Your task to perform on an android device: Go to internet settings Image 0: 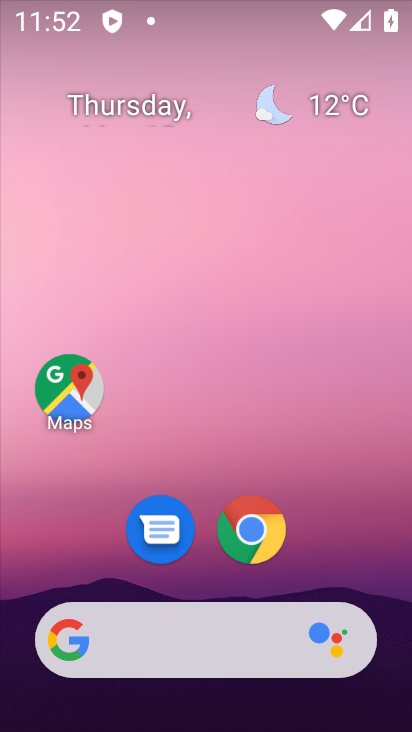
Step 0: click (250, 285)
Your task to perform on an android device: Go to internet settings Image 1: 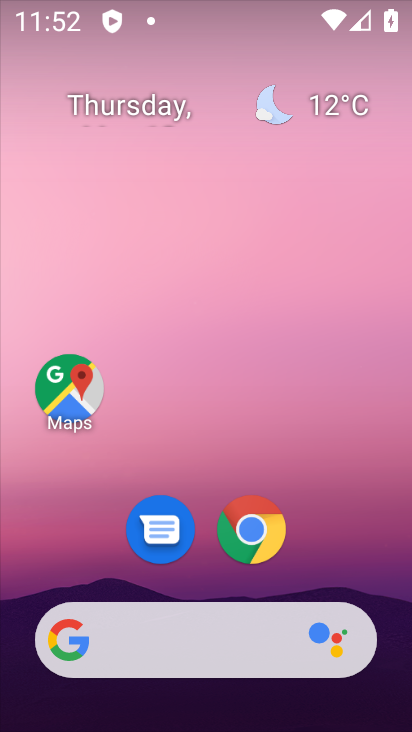
Step 1: drag from (335, 585) to (355, 286)
Your task to perform on an android device: Go to internet settings Image 2: 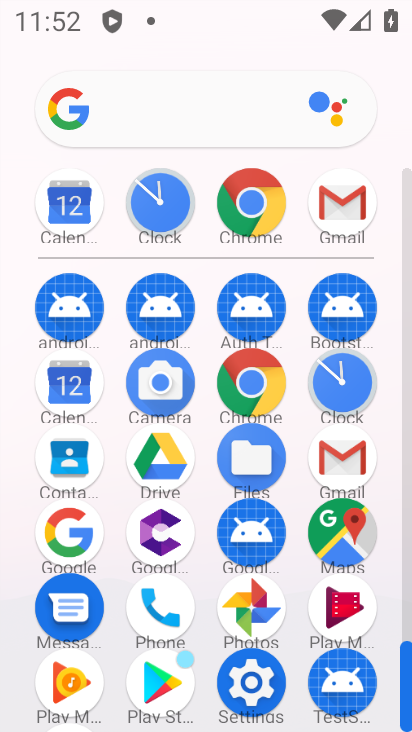
Step 2: click (236, 668)
Your task to perform on an android device: Go to internet settings Image 3: 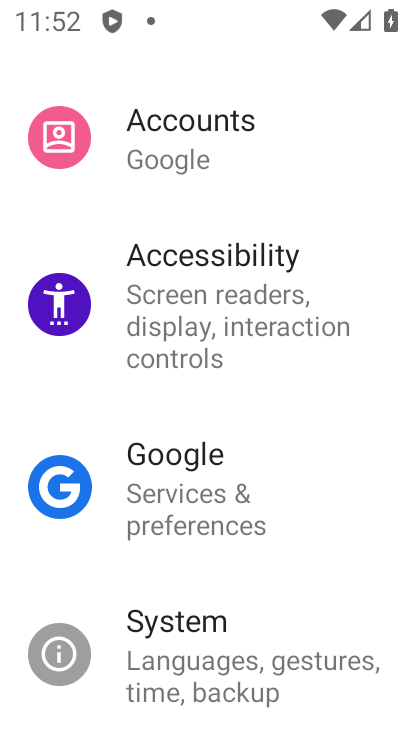
Step 3: drag from (197, 89) to (199, 639)
Your task to perform on an android device: Go to internet settings Image 4: 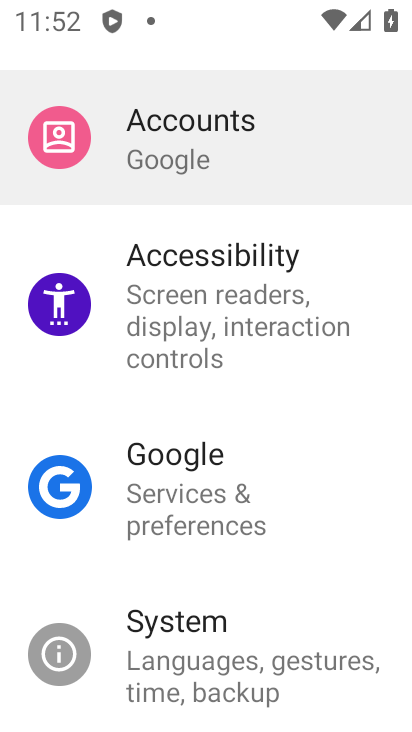
Step 4: click (211, 451)
Your task to perform on an android device: Go to internet settings Image 5: 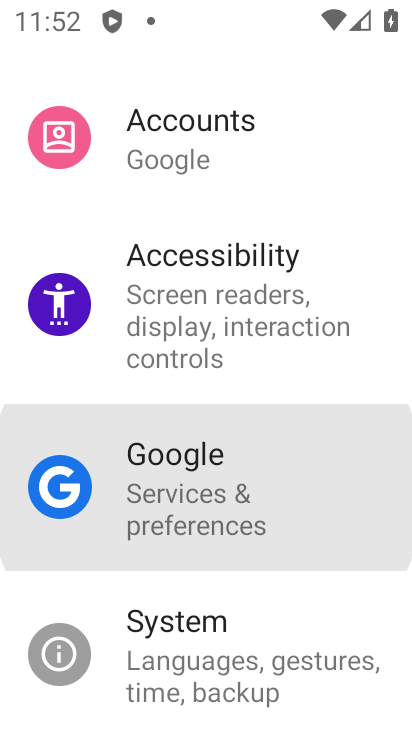
Step 5: drag from (230, 256) to (239, 560)
Your task to perform on an android device: Go to internet settings Image 6: 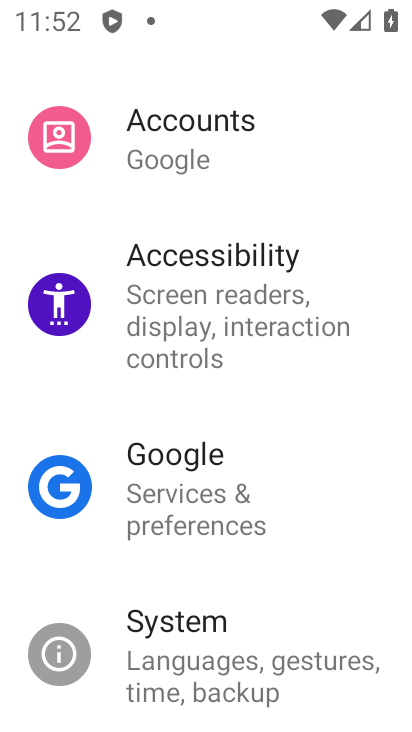
Step 6: drag from (241, 249) to (250, 629)
Your task to perform on an android device: Go to internet settings Image 7: 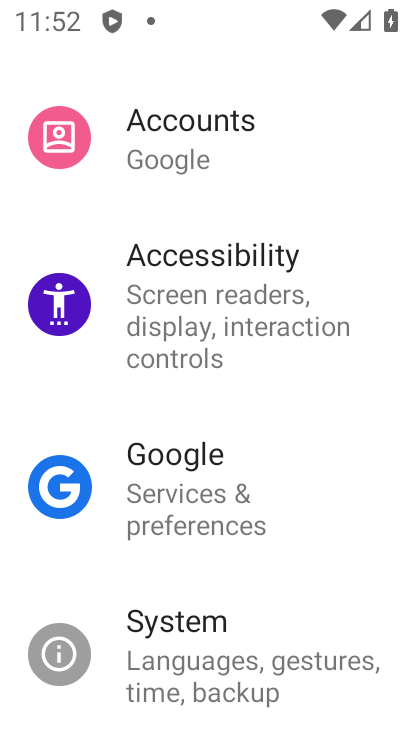
Step 7: drag from (179, 237) to (208, 587)
Your task to perform on an android device: Go to internet settings Image 8: 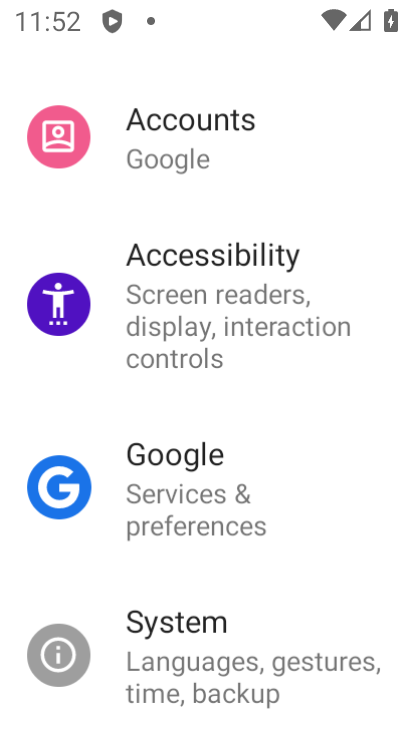
Step 8: drag from (128, 241) to (142, 455)
Your task to perform on an android device: Go to internet settings Image 9: 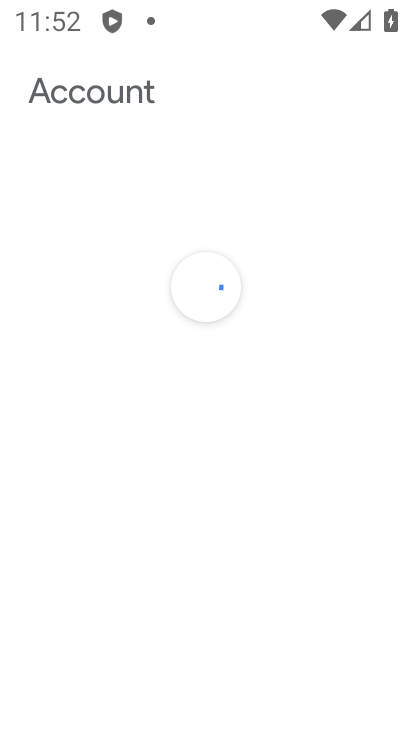
Step 9: drag from (200, 220) to (152, 564)
Your task to perform on an android device: Go to internet settings Image 10: 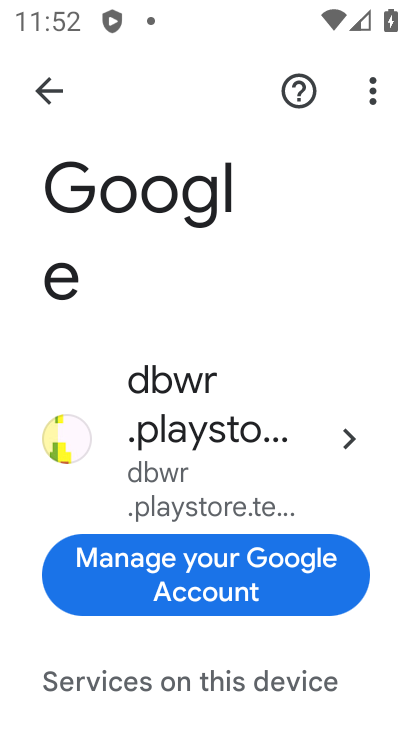
Step 10: press back button
Your task to perform on an android device: Go to internet settings Image 11: 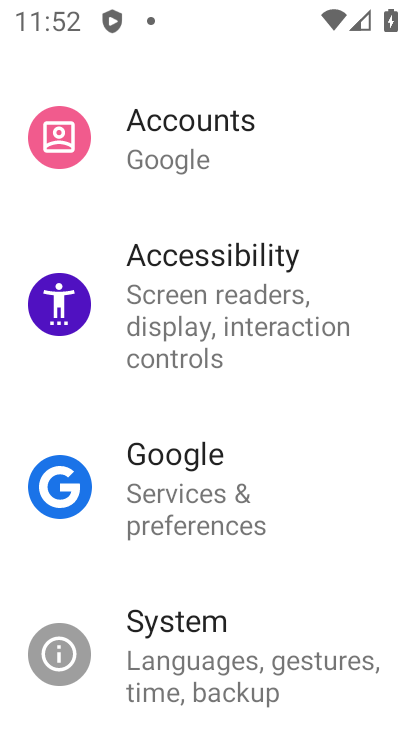
Step 11: drag from (329, 224) to (390, 594)
Your task to perform on an android device: Go to internet settings Image 12: 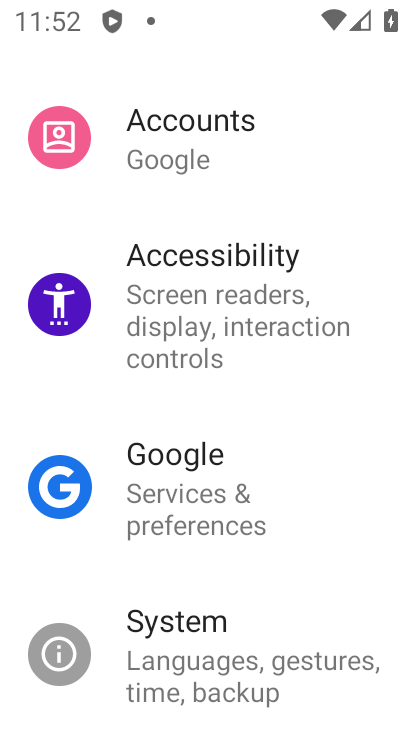
Step 12: press back button
Your task to perform on an android device: Go to internet settings Image 13: 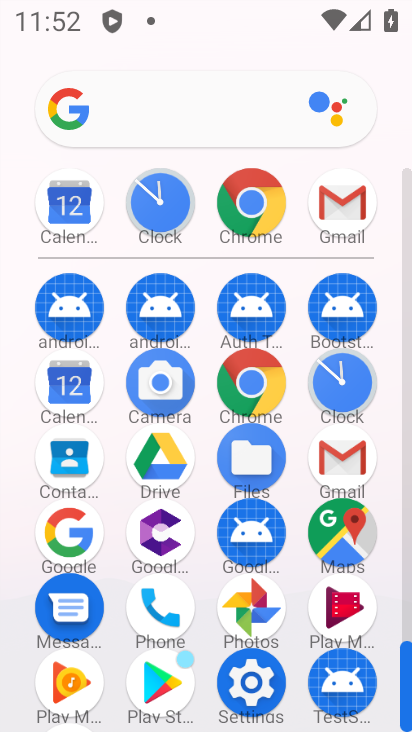
Step 13: click (247, 677)
Your task to perform on an android device: Go to internet settings Image 14: 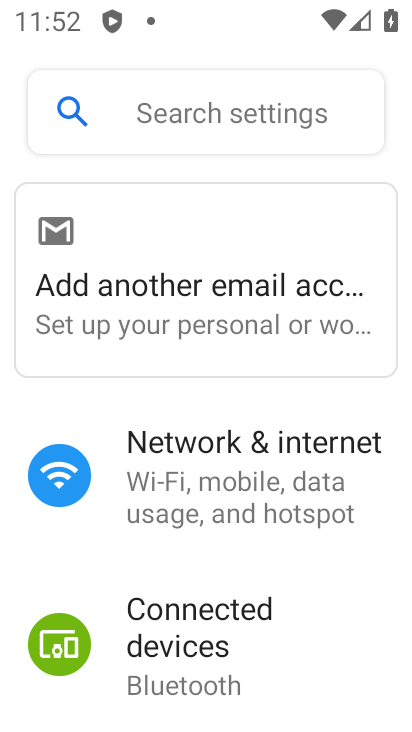
Step 14: click (226, 482)
Your task to perform on an android device: Go to internet settings Image 15: 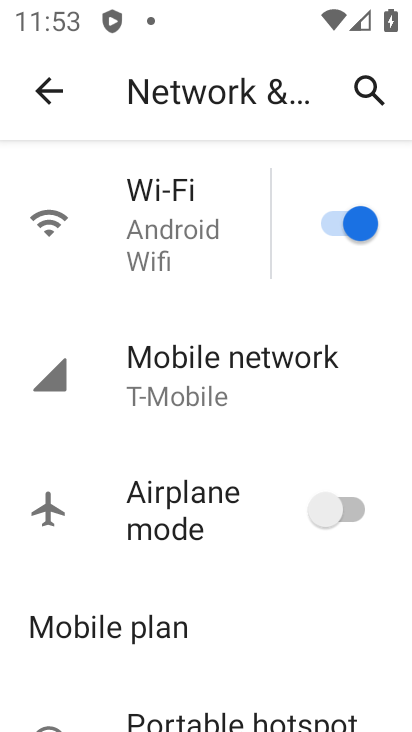
Step 15: task complete